Your task to perform on an android device: Go to eBay Image 0: 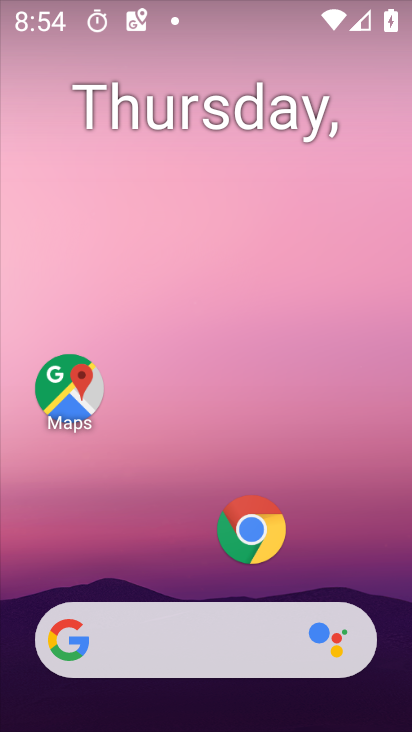
Step 0: click (250, 523)
Your task to perform on an android device: Go to eBay Image 1: 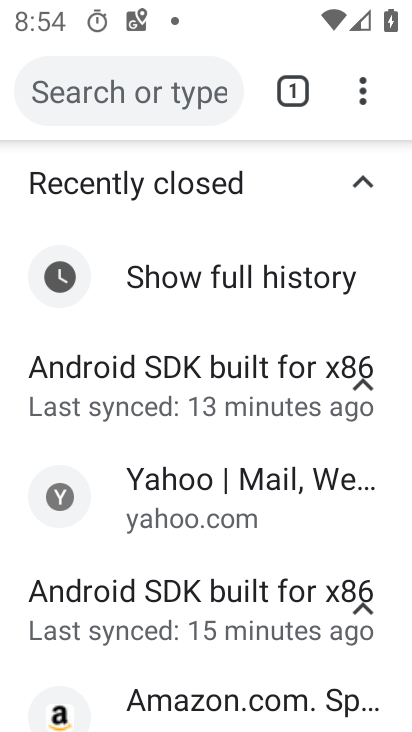
Step 1: click (295, 80)
Your task to perform on an android device: Go to eBay Image 2: 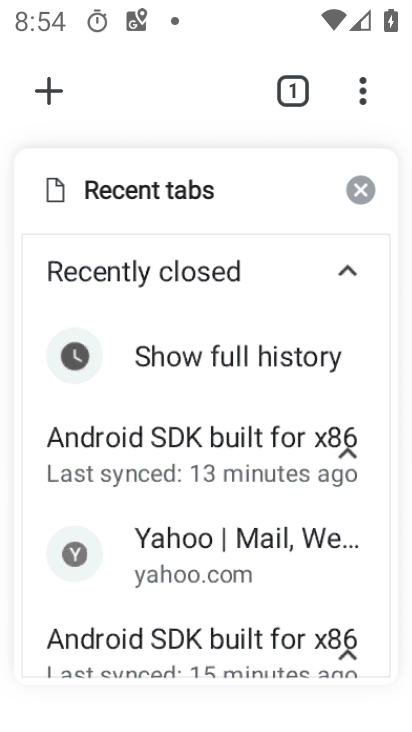
Step 2: click (357, 183)
Your task to perform on an android device: Go to eBay Image 3: 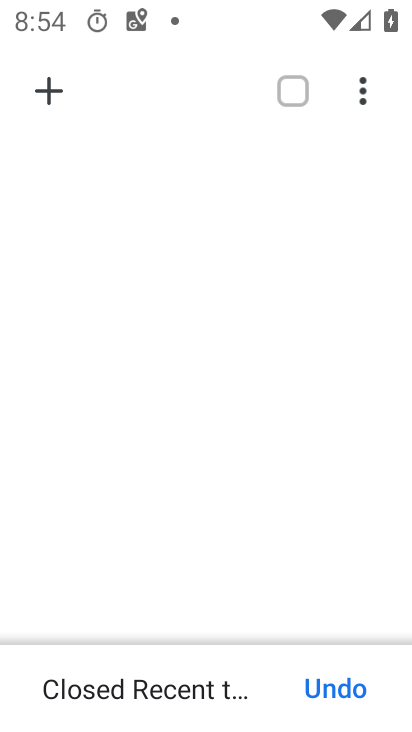
Step 3: click (55, 93)
Your task to perform on an android device: Go to eBay Image 4: 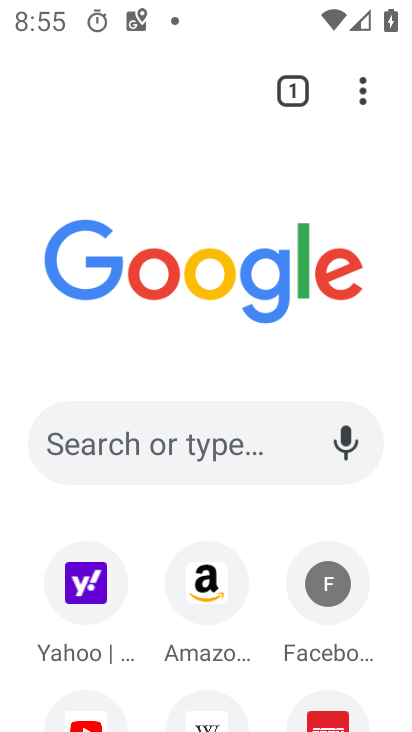
Step 4: drag from (262, 546) to (262, 234)
Your task to perform on an android device: Go to eBay Image 5: 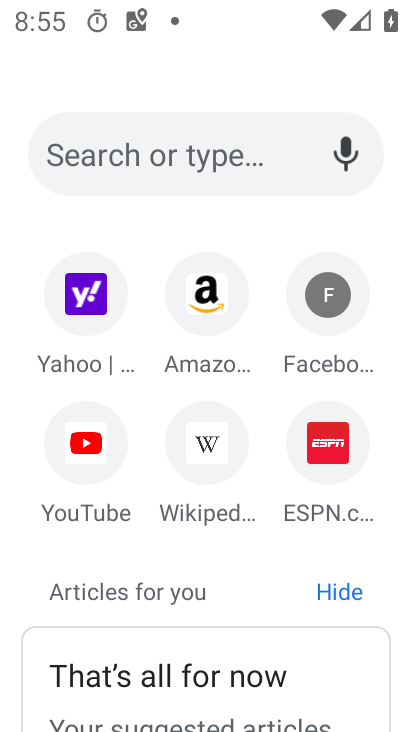
Step 5: click (123, 146)
Your task to perform on an android device: Go to eBay Image 6: 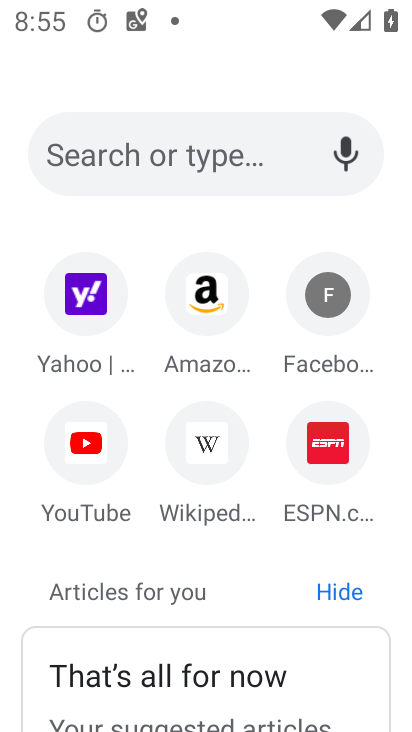
Step 6: click (121, 149)
Your task to perform on an android device: Go to eBay Image 7: 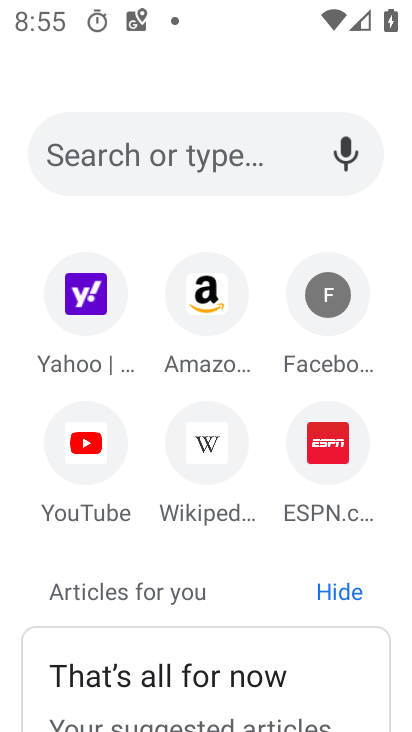
Step 7: click (116, 152)
Your task to perform on an android device: Go to eBay Image 8: 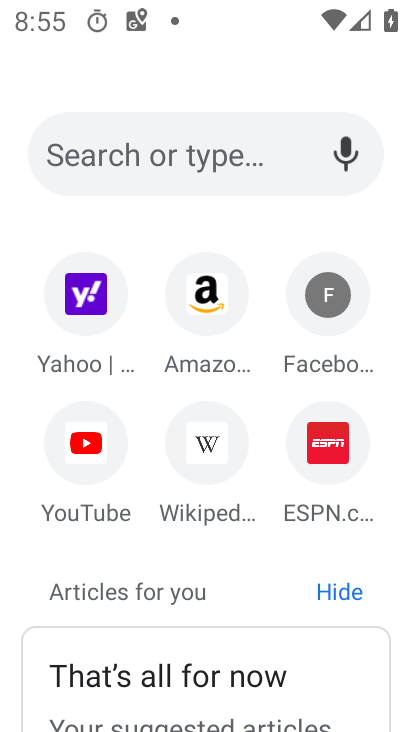
Step 8: click (160, 141)
Your task to perform on an android device: Go to eBay Image 9: 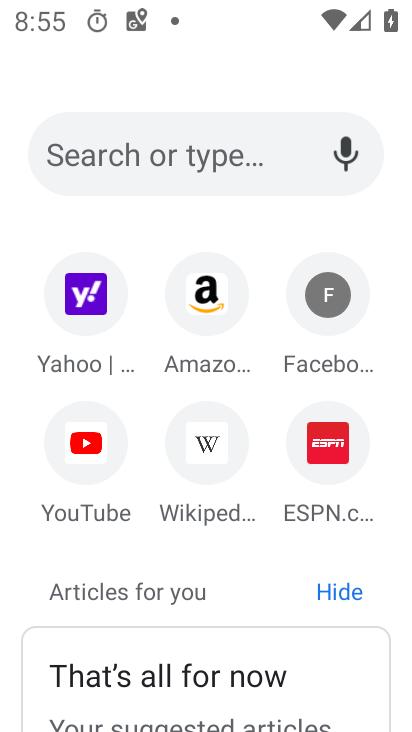
Step 9: drag from (154, 215) to (140, 563)
Your task to perform on an android device: Go to eBay Image 10: 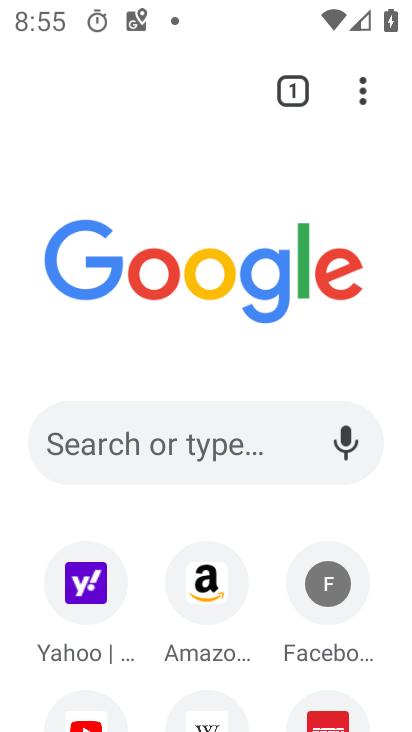
Step 10: click (136, 449)
Your task to perform on an android device: Go to eBay Image 11: 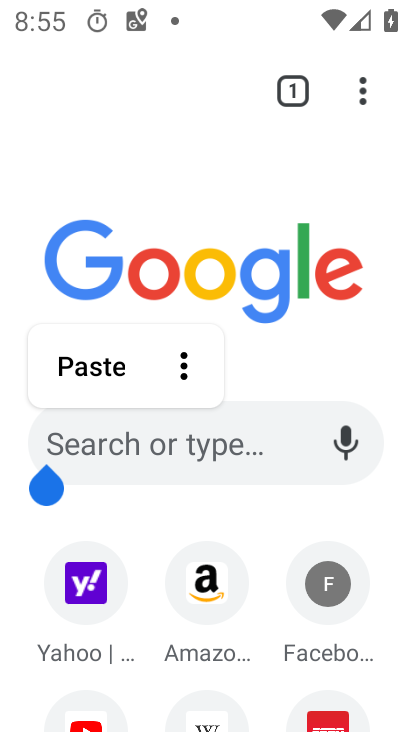
Step 11: click (114, 449)
Your task to perform on an android device: Go to eBay Image 12: 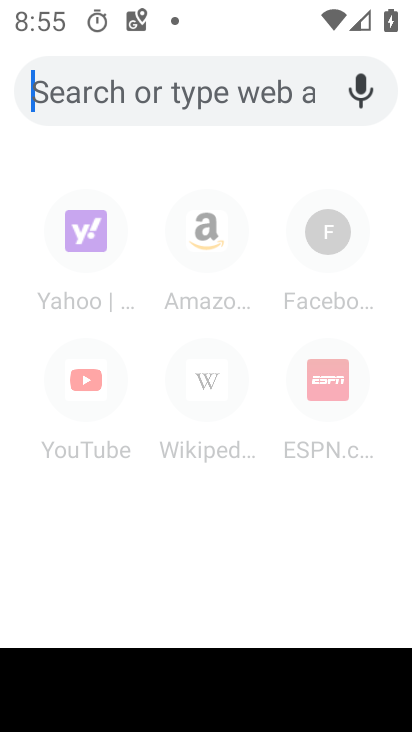
Step 12: type "ebay"
Your task to perform on an android device: Go to eBay Image 13: 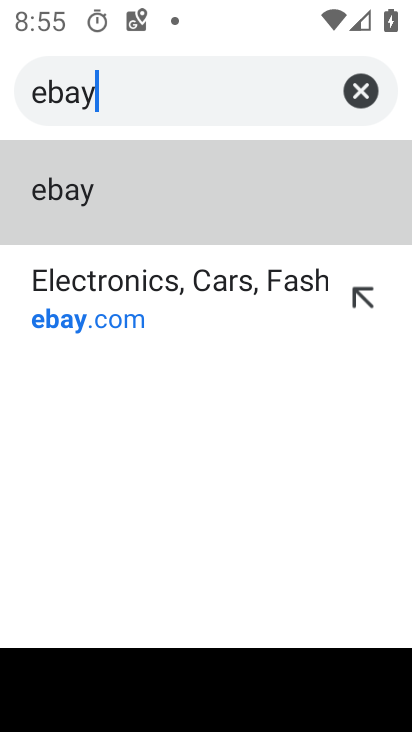
Step 13: type ""
Your task to perform on an android device: Go to eBay Image 14: 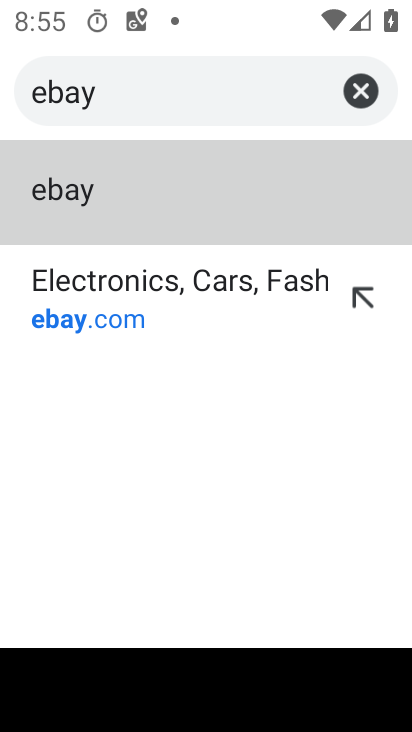
Step 14: click (168, 299)
Your task to perform on an android device: Go to eBay Image 15: 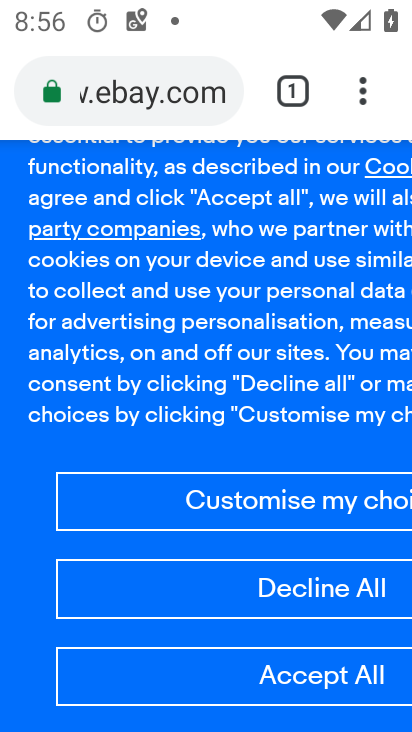
Step 15: click (347, 681)
Your task to perform on an android device: Go to eBay Image 16: 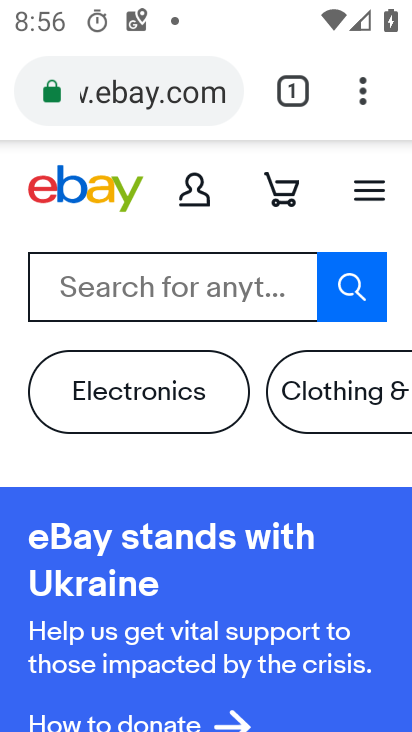
Step 16: task complete